Your task to perform on an android device: turn off picture-in-picture Image 0: 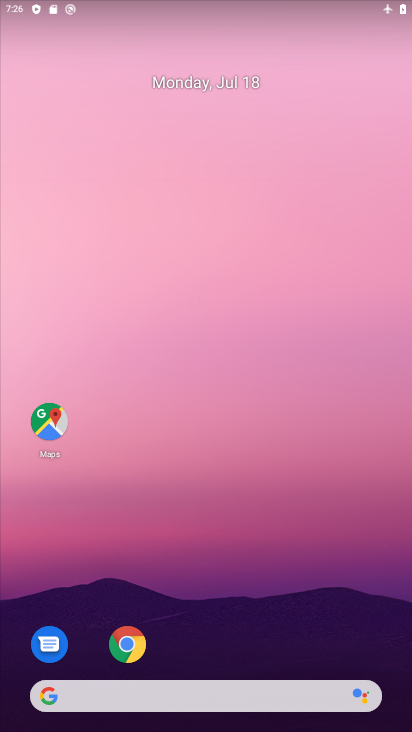
Step 0: drag from (374, 610) to (410, 196)
Your task to perform on an android device: turn off picture-in-picture Image 1: 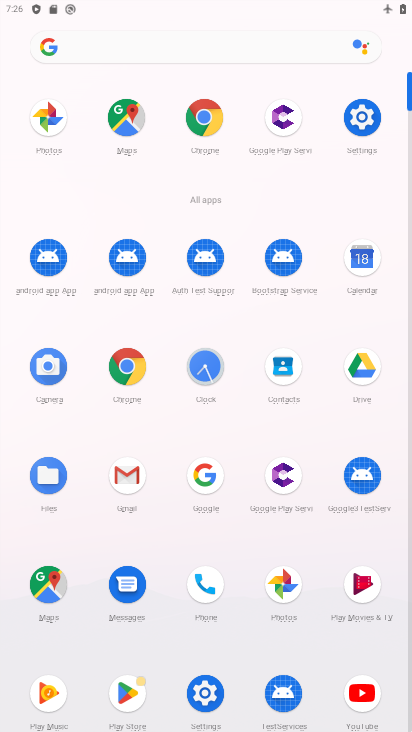
Step 1: click (364, 125)
Your task to perform on an android device: turn off picture-in-picture Image 2: 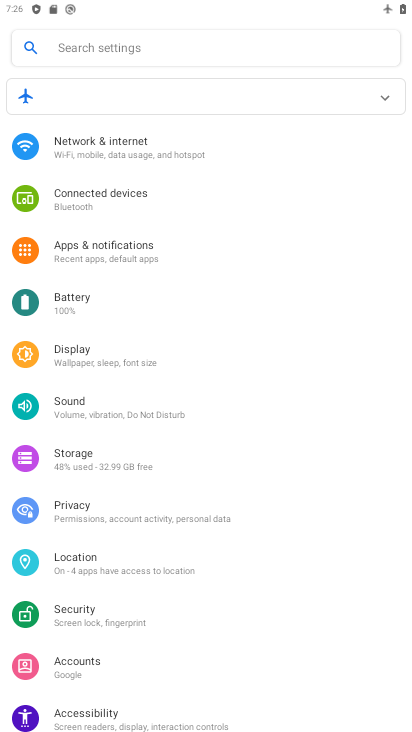
Step 2: click (161, 255)
Your task to perform on an android device: turn off picture-in-picture Image 3: 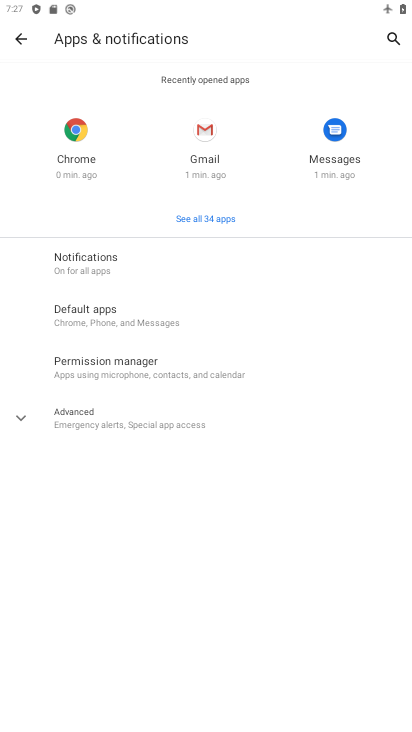
Step 3: click (132, 415)
Your task to perform on an android device: turn off picture-in-picture Image 4: 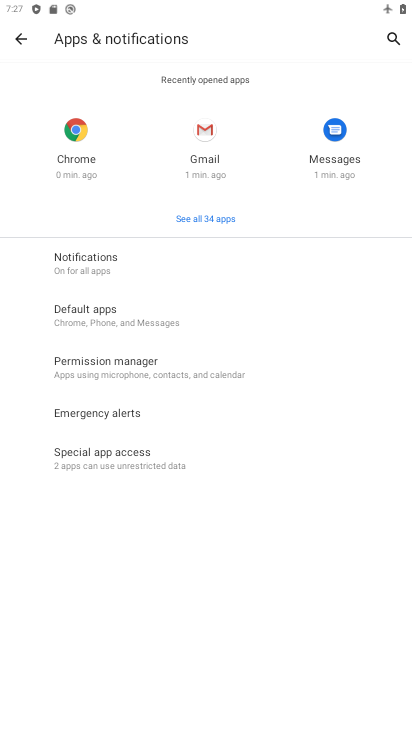
Step 4: click (117, 458)
Your task to perform on an android device: turn off picture-in-picture Image 5: 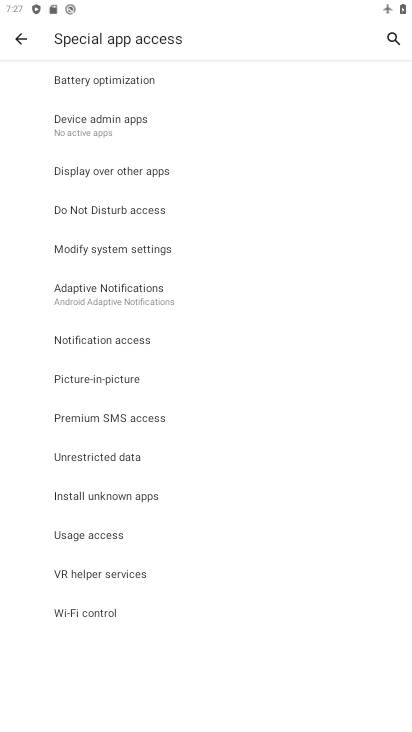
Step 5: click (141, 375)
Your task to perform on an android device: turn off picture-in-picture Image 6: 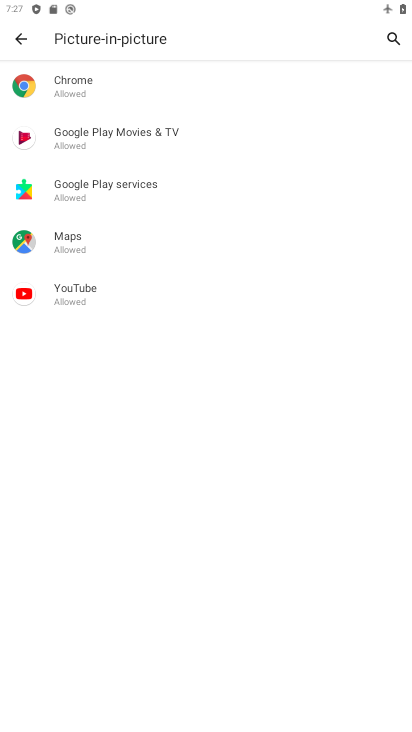
Step 6: click (106, 290)
Your task to perform on an android device: turn off picture-in-picture Image 7: 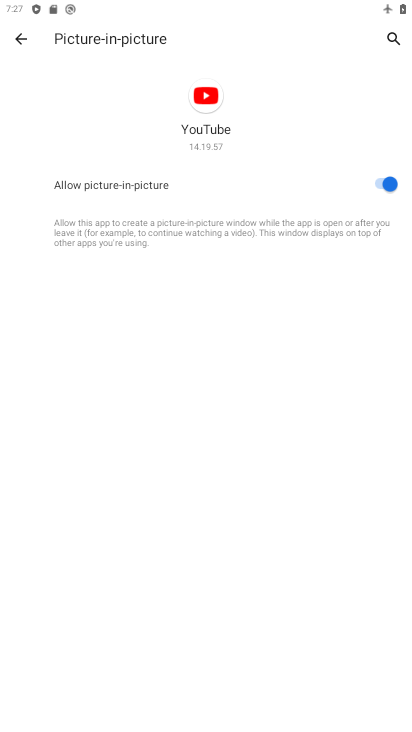
Step 7: click (392, 182)
Your task to perform on an android device: turn off picture-in-picture Image 8: 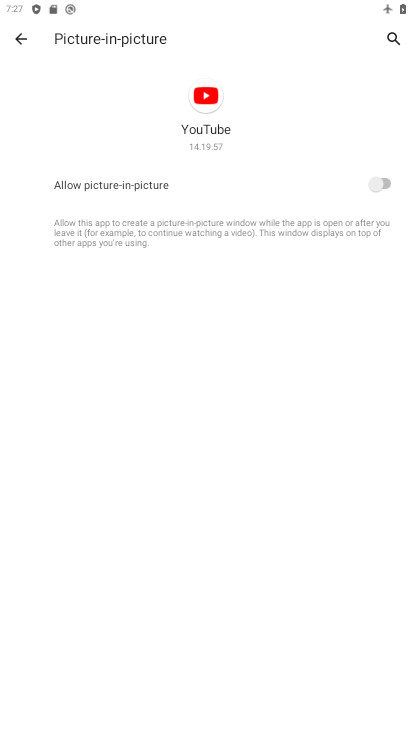
Step 8: task complete